Your task to perform on an android device: turn on priority inbox in the gmail app Image 0: 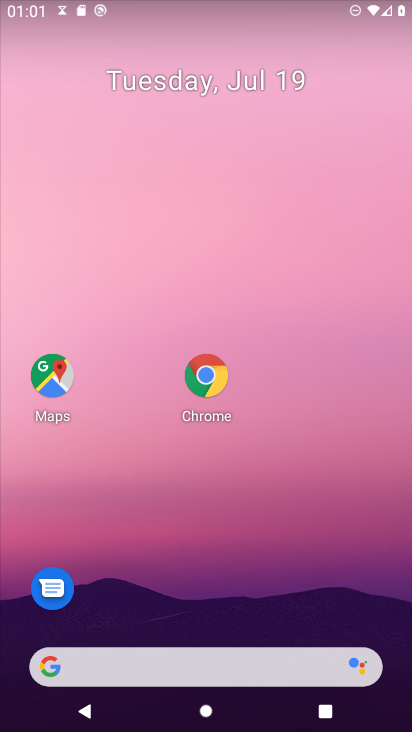
Step 0: press home button
Your task to perform on an android device: turn on priority inbox in the gmail app Image 1: 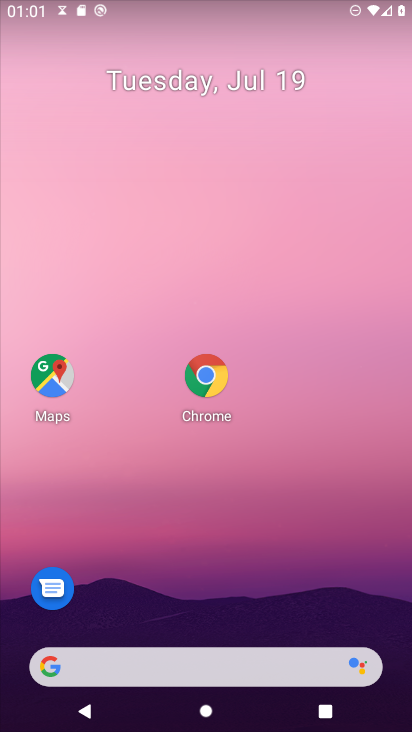
Step 1: drag from (321, 556) to (382, 554)
Your task to perform on an android device: turn on priority inbox in the gmail app Image 2: 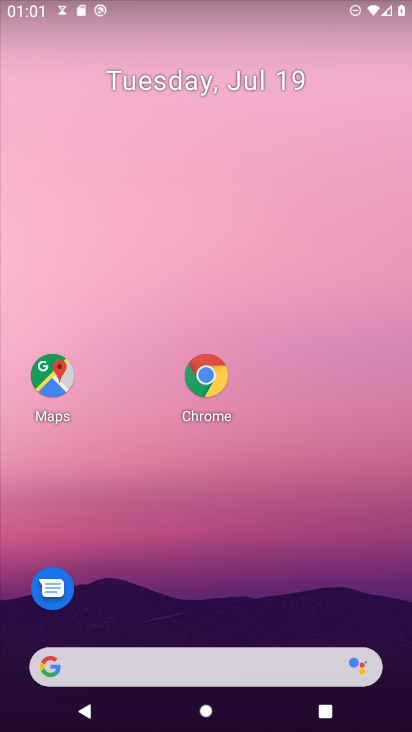
Step 2: drag from (153, 549) to (252, 12)
Your task to perform on an android device: turn on priority inbox in the gmail app Image 3: 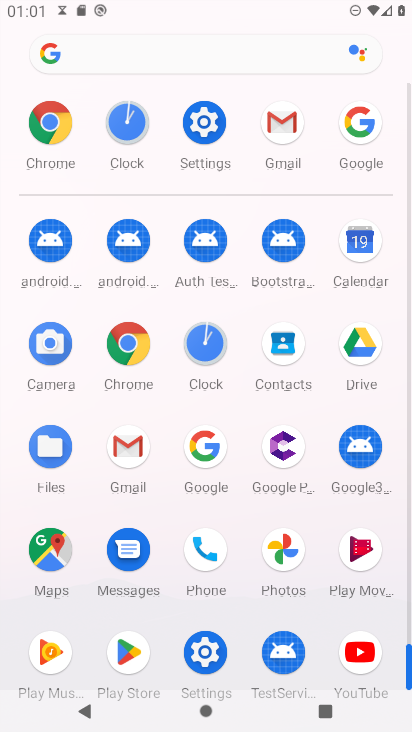
Step 3: click (291, 122)
Your task to perform on an android device: turn on priority inbox in the gmail app Image 4: 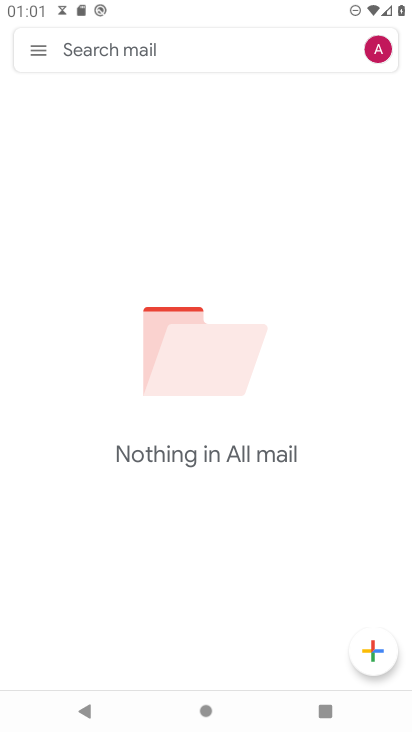
Step 4: click (37, 49)
Your task to perform on an android device: turn on priority inbox in the gmail app Image 5: 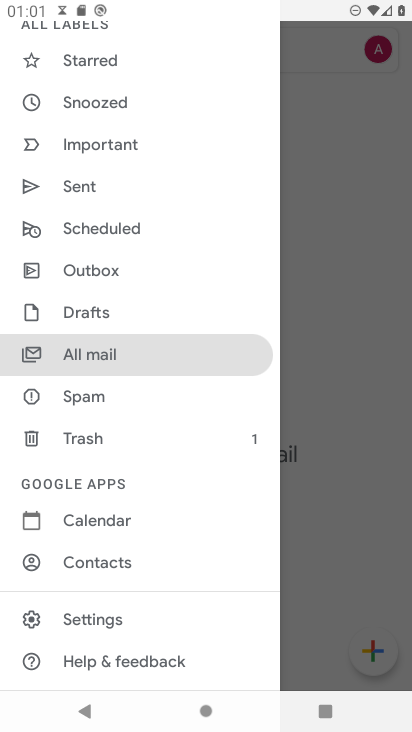
Step 5: click (99, 619)
Your task to perform on an android device: turn on priority inbox in the gmail app Image 6: 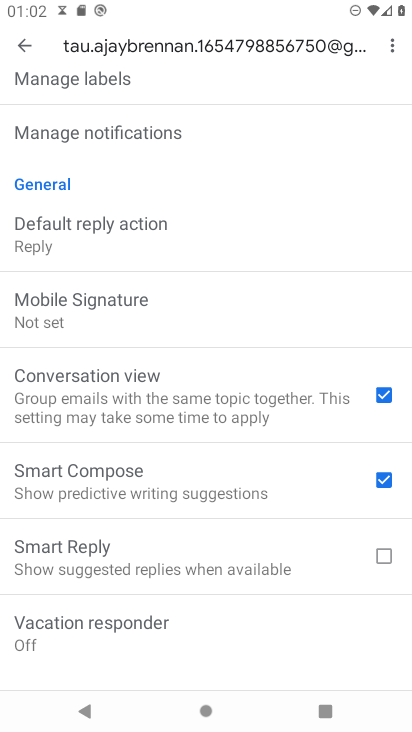
Step 6: drag from (184, 173) to (145, 661)
Your task to perform on an android device: turn on priority inbox in the gmail app Image 7: 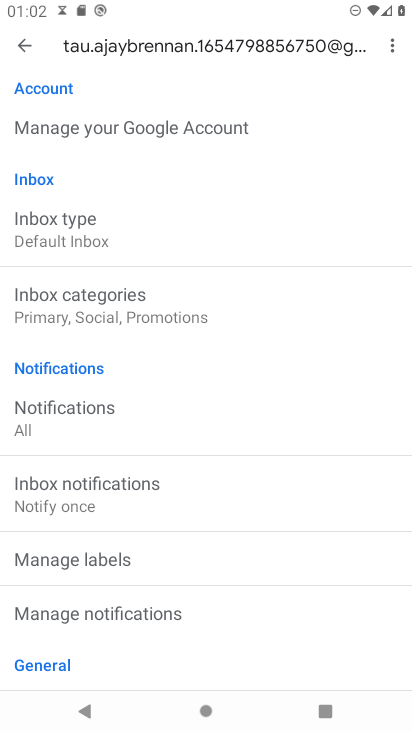
Step 7: click (73, 229)
Your task to perform on an android device: turn on priority inbox in the gmail app Image 8: 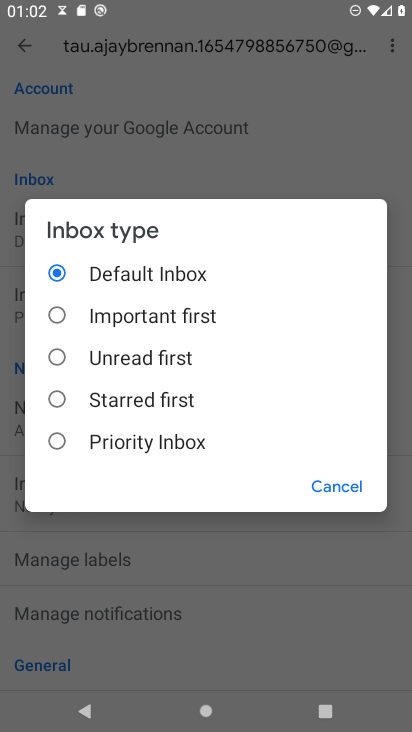
Step 8: click (55, 442)
Your task to perform on an android device: turn on priority inbox in the gmail app Image 9: 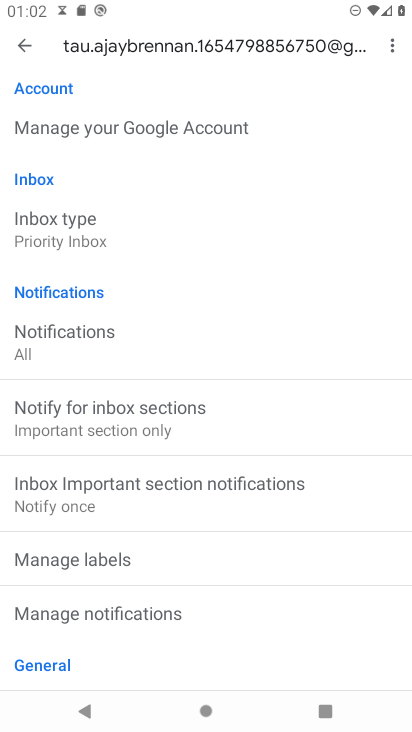
Step 9: task complete